Your task to perform on an android device: turn on priority inbox in the gmail app Image 0: 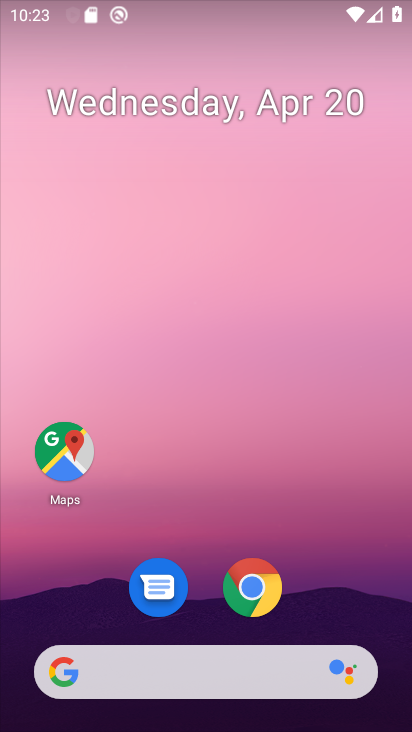
Step 0: drag from (318, 407) to (218, 5)
Your task to perform on an android device: turn on priority inbox in the gmail app Image 1: 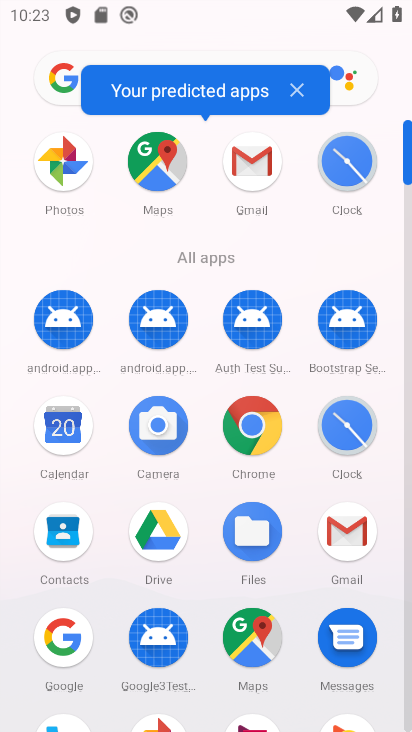
Step 1: click (346, 524)
Your task to perform on an android device: turn on priority inbox in the gmail app Image 2: 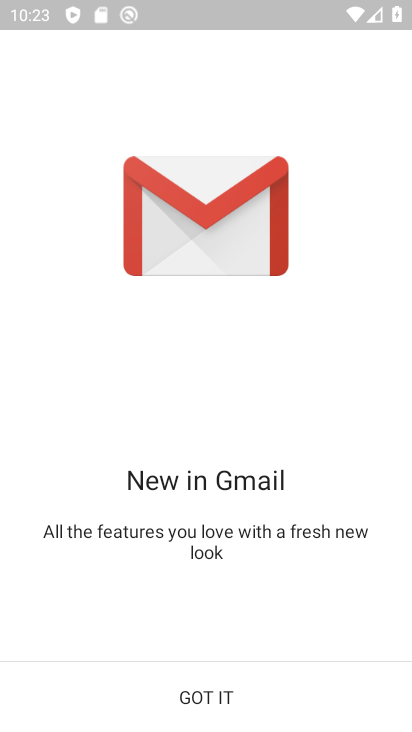
Step 2: click (206, 703)
Your task to perform on an android device: turn on priority inbox in the gmail app Image 3: 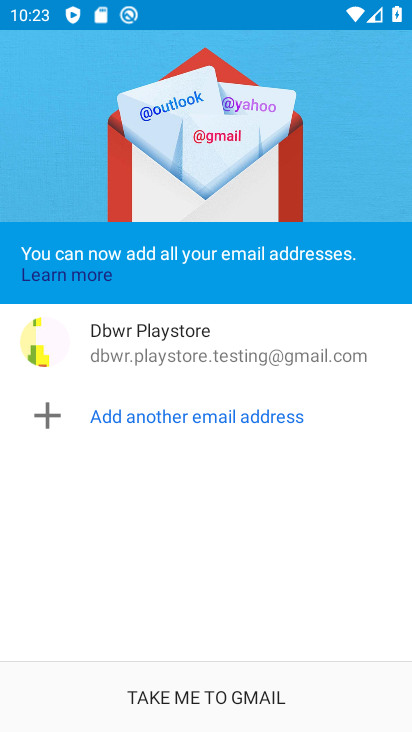
Step 3: click (203, 700)
Your task to perform on an android device: turn on priority inbox in the gmail app Image 4: 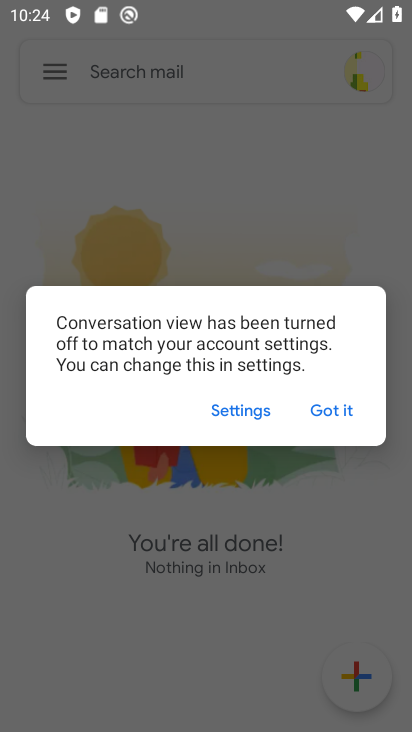
Step 4: click (323, 408)
Your task to perform on an android device: turn on priority inbox in the gmail app Image 5: 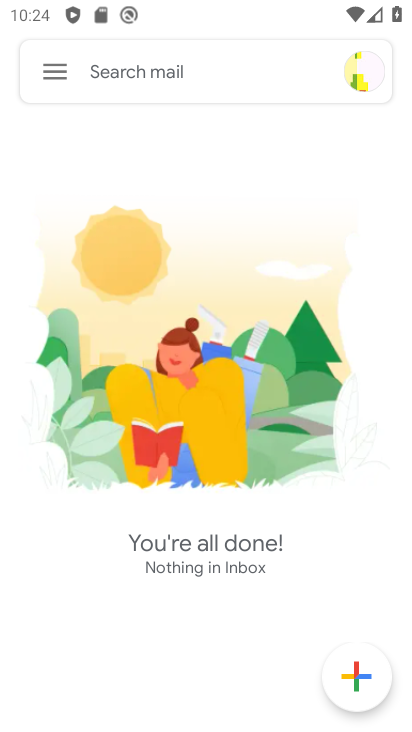
Step 5: click (45, 69)
Your task to perform on an android device: turn on priority inbox in the gmail app Image 6: 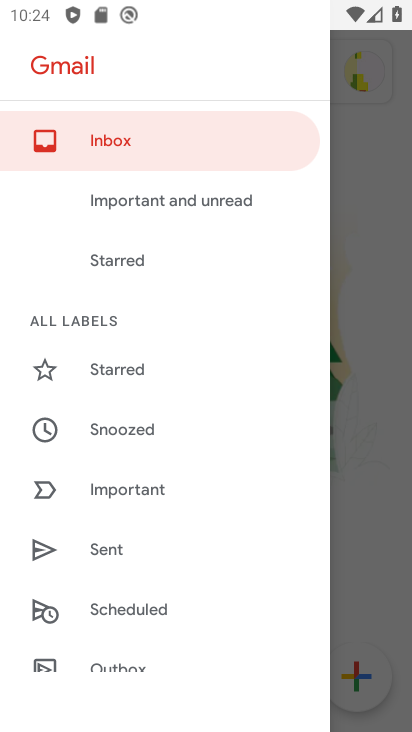
Step 6: drag from (160, 503) to (155, 176)
Your task to perform on an android device: turn on priority inbox in the gmail app Image 7: 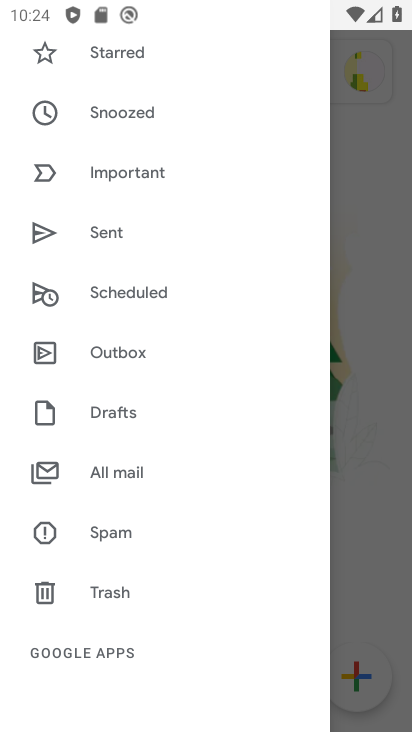
Step 7: drag from (171, 521) to (192, 219)
Your task to perform on an android device: turn on priority inbox in the gmail app Image 8: 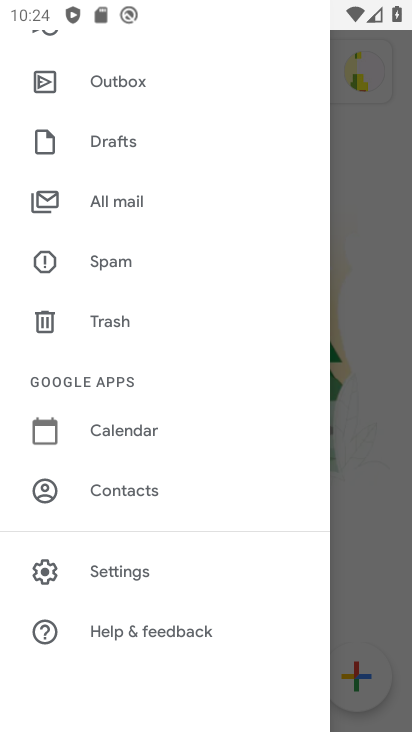
Step 8: click (136, 569)
Your task to perform on an android device: turn on priority inbox in the gmail app Image 9: 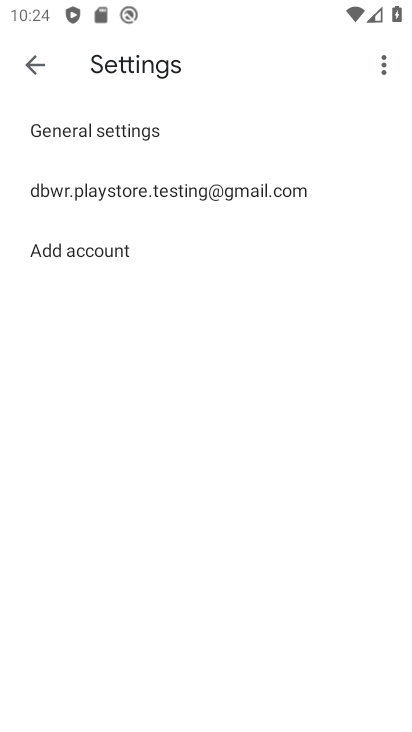
Step 9: click (211, 195)
Your task to perform on an android device: turn on priority inbox in the gmail app Image 10: 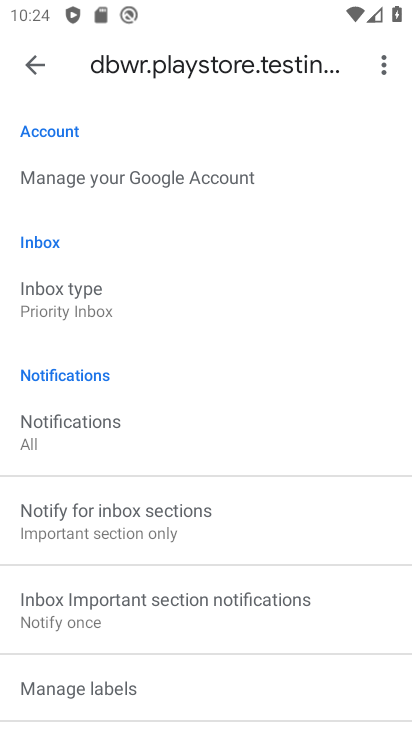
Step 10: task complete